Your task to perform on an android device: Check out the top rated books on Goodreads. Image 0: 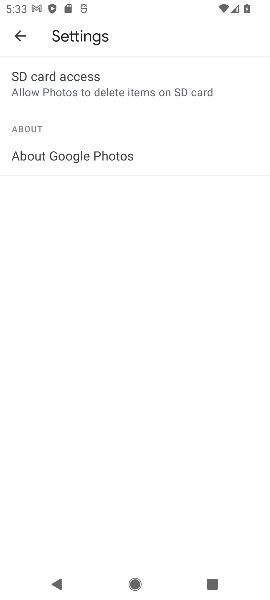
Step 0: press home button
Your task to perform on an android device: Check out the top rated books on Goodreads. Image 1: 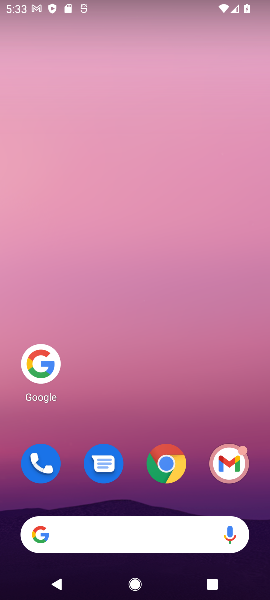
Step 1: click (27, 347)
Your task to perform on an android device: Check out the top rated books on Goodreads. Image 2: 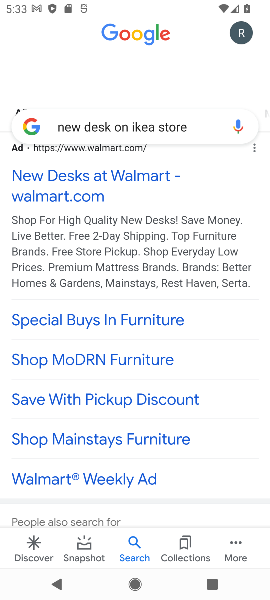
Step 2: click (200, 118)
Your task to perform on an android device: Check out the top rated books on Goodreads. Image 3: 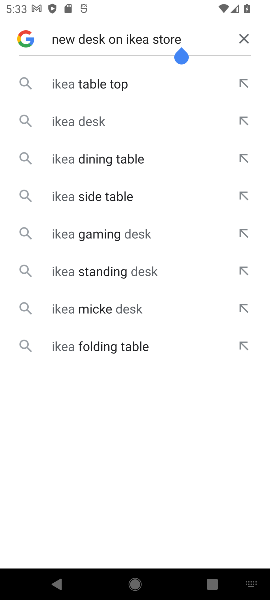
Step 3: click (240, 35)
Your task to perform on an android device: Check out the top rated books on Goodreads. Image 4: 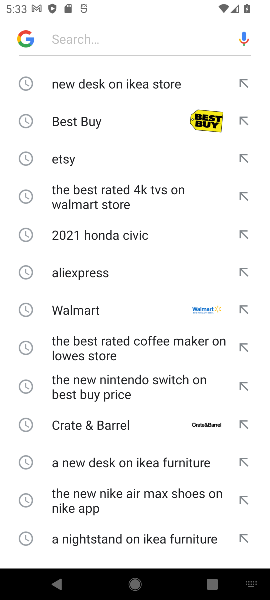
Step 4: drag from (118, 21) to (120, 48)
Your task to perform on an android device: Check out the top rated books on Goodreads. Image 5: 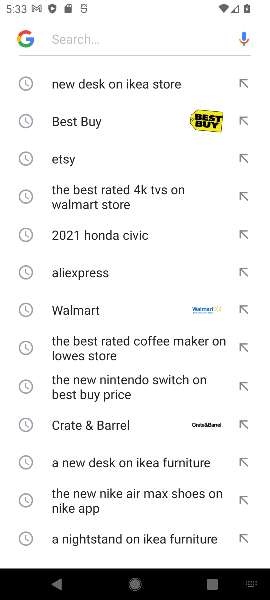
Step 5: click (94, 23)
Your task to perform on an android device: Check out the top rated books on Goodreads. Image 6: 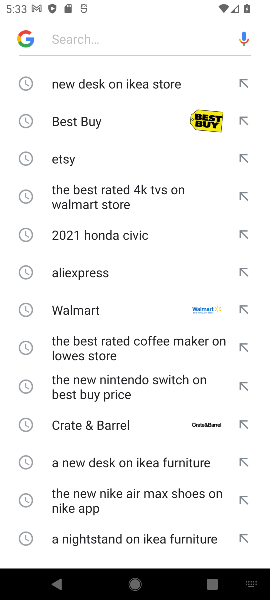
Step 6: click (108, 37)
Your task to perform on an android device: Check out the top rated books on Goodreads. Image 7: 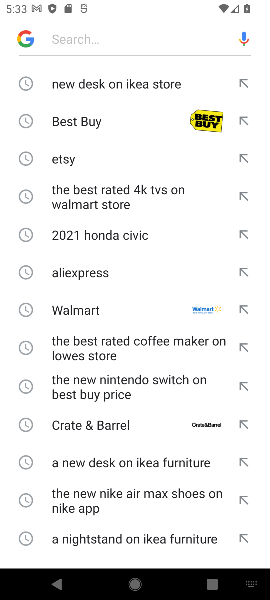
Step 7: type " the top rated books on Goodreads "
Your task to perform on an android device: Check out the top rated books on Goodreads. Image 8: 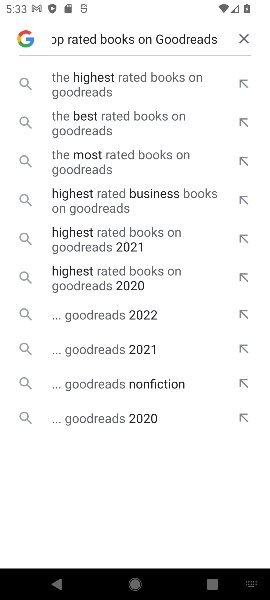
Step 8: click (105, 87)
Your task to perform on an android device: Check out the top rated books on Goodreads. Image 9: 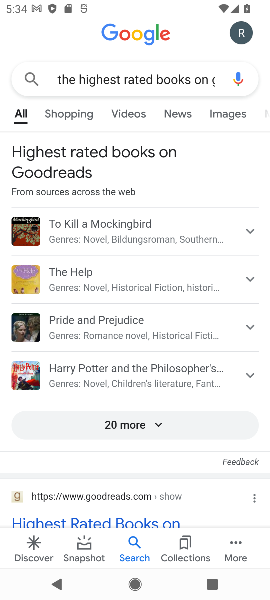
Step 9: drag from (160, 491) to (179, 210)
Your task to perform on an android device: Check out the top rated books on Goodreads. Image 10: 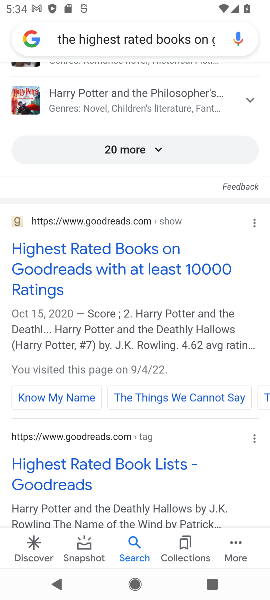
Step 10: click (53, 258)
Your task to perform on an android device: Check out the top rated books on Goodreads. Image 11: 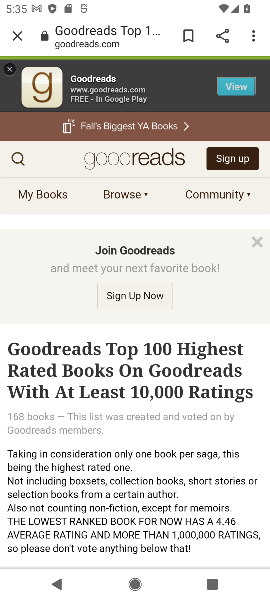
Step 11: task complete